Your task to perform on an android device: change the clock display to show seconds Image 0: 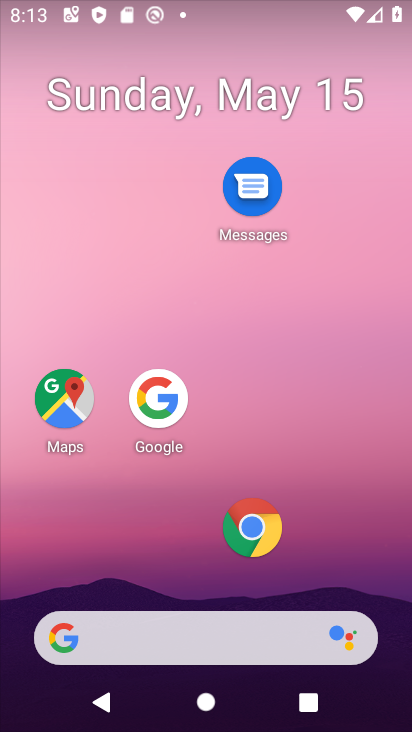
Step 0: drag from (162, 643) to (286, 219)
Your task to perform on an android device: change the clock display to show seconds Image 1: 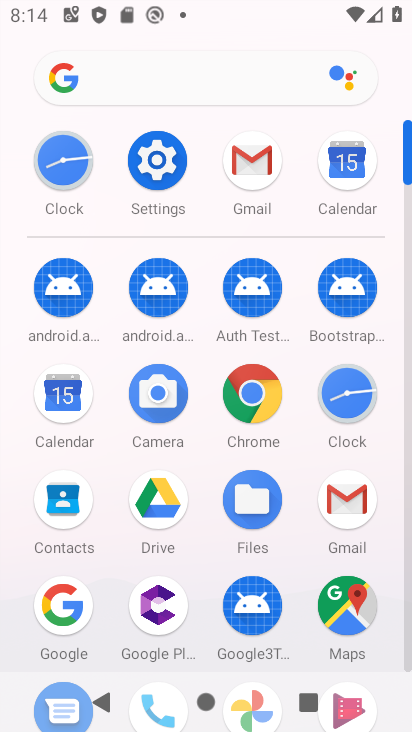
Step 1: click (351, 396)
Your task to perform on an android device: change the clock display to show seconds Image 2: 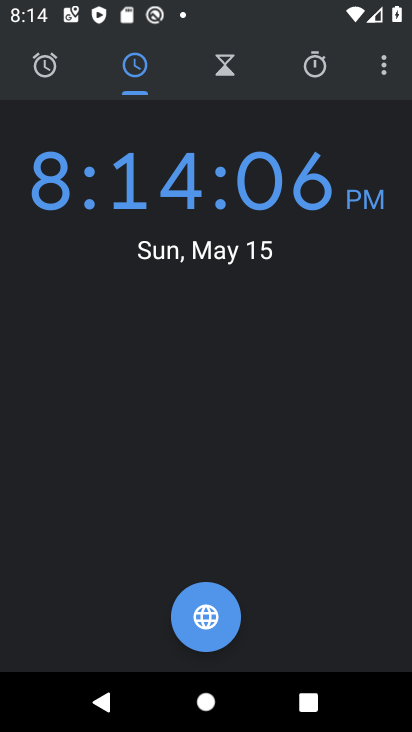
Step 2: click (381, 77)
Your task to perform on an android device: change the clock display to show seconds Image 3: 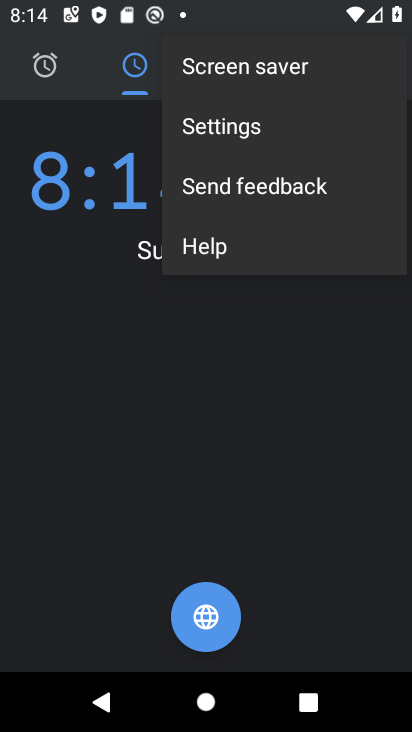
Step 3: click (246, 138)
Your task to perform on an android device: change the clock display to show seconds Image 4: 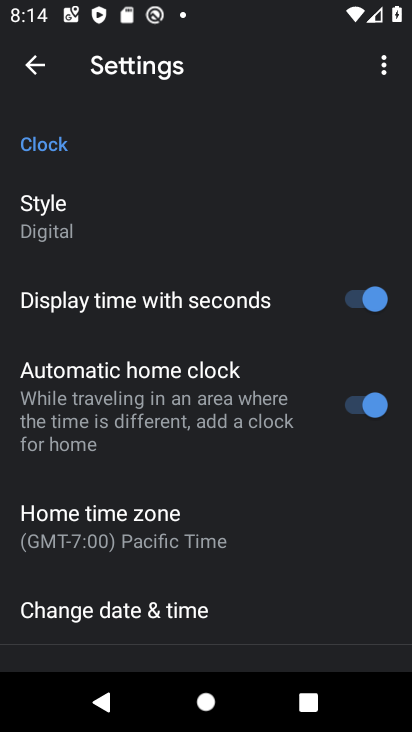
Step 4: task complete